Your task to perform on an android device: turn smart compose on in the gmail app Image 0: 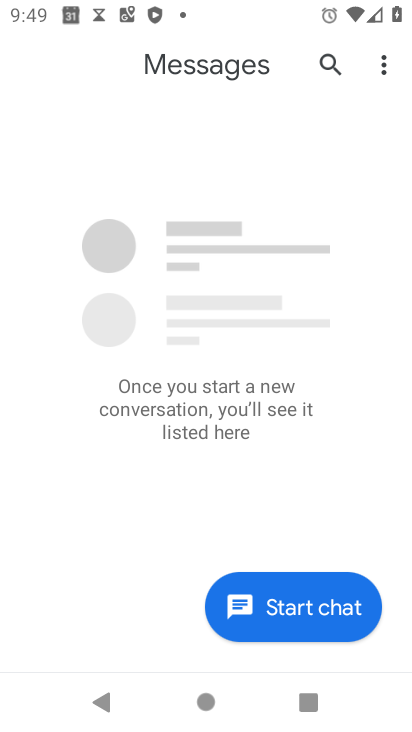
Step 0: press home button
Your task to perform on an android device: turn smart compose on in the gmail app Image 1: 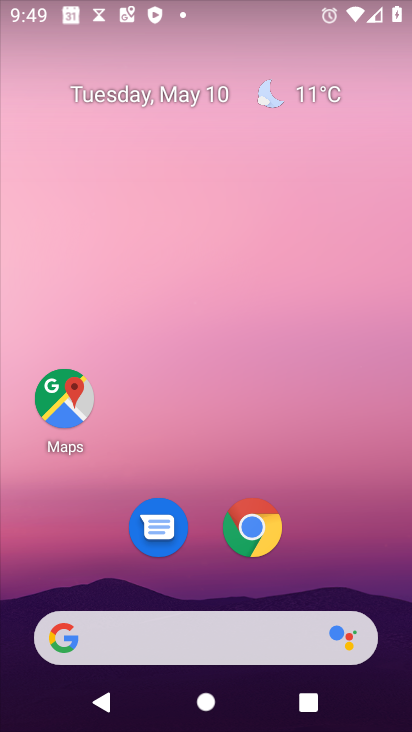
Step 1: drag from (357, 495) to (323, 94)
Your task to perform on an android device: turn smart compose on in the gmail app Image 2: 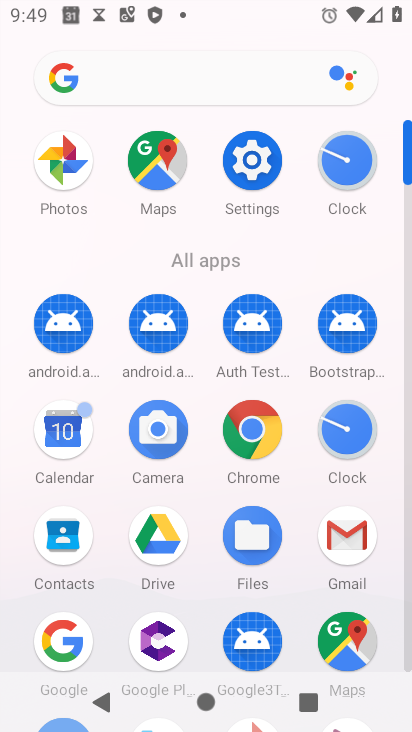
Step 2: click (326, 535)
Your task to perform on an android device: turn smart compose on in the gmail app Image 3: 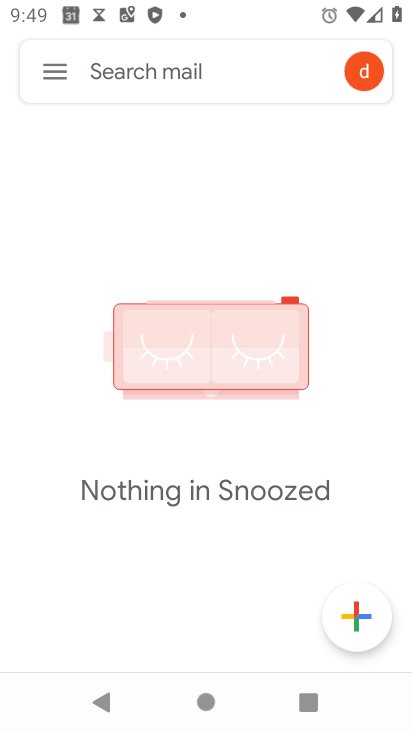
Step 3: click (56, 71)
Your task to perform on an android device: turn smart compose on in the gmail app Image 4: 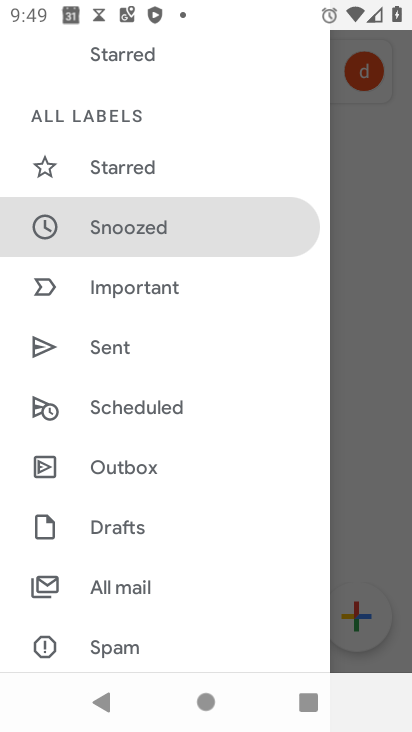
Step 4: drag from (184, 624) to (182, 323)
Your task to perform on an android device: turn smart compose on in the gmail app Image 5: 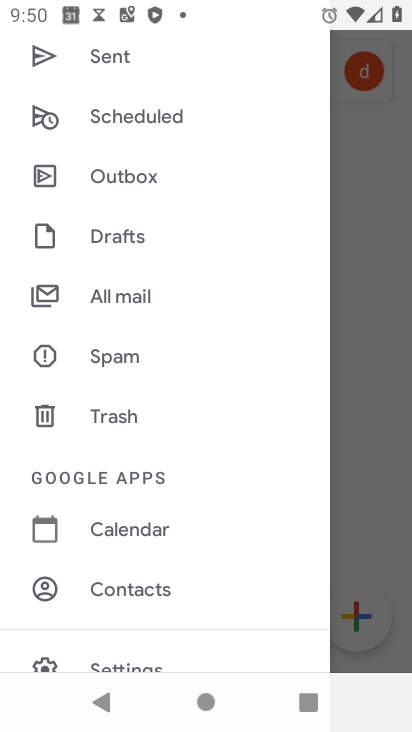
Step 5: drag from (185, 505) to (170, 304)
Your task to perform on an android device: turn smart compose on in the gmail app Image 6: 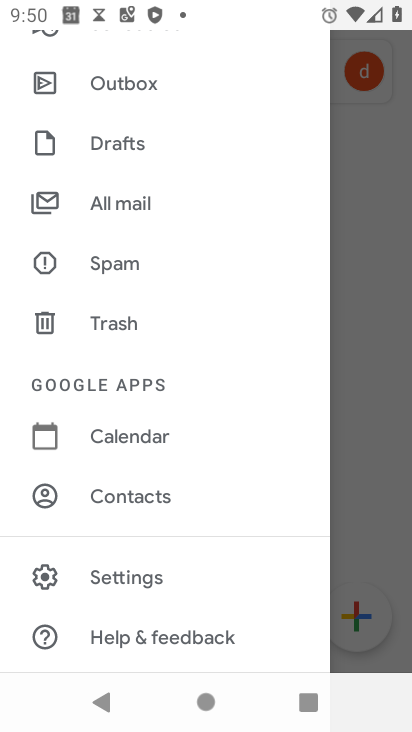
Step 6: click (157, 582)
Your task to perform on an android device: turn smart compose on in the gmail app Image 7: 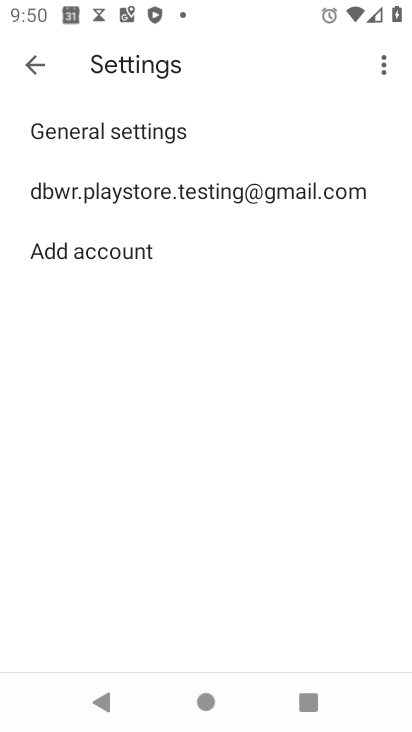
Step 7: click (103, 182)
Your task to perform on an android device: turn smart compose on in the gmail app Image 8: 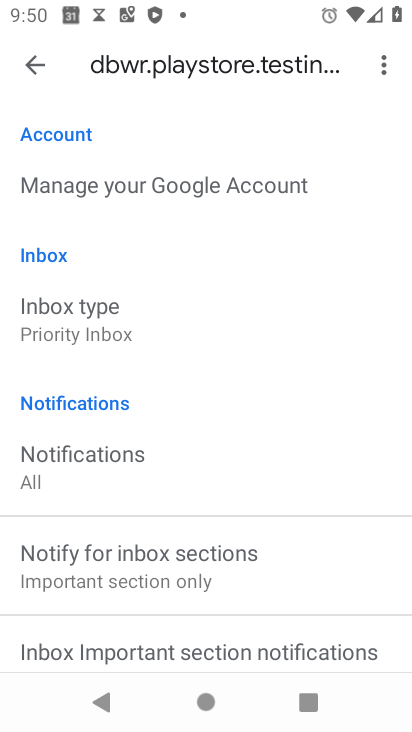
Step 8: task complete